Your task to perform on an android device: Go to Reddit.com Image 0: 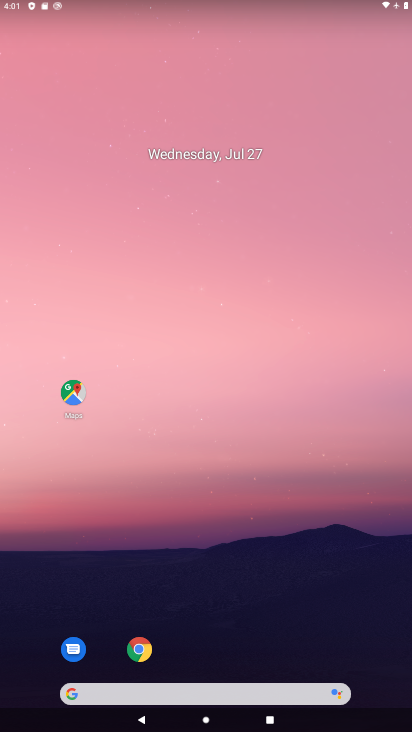
Step 0: click (145, 650)
Your task to perform on an android device: Go to Reddit.com Image 1: 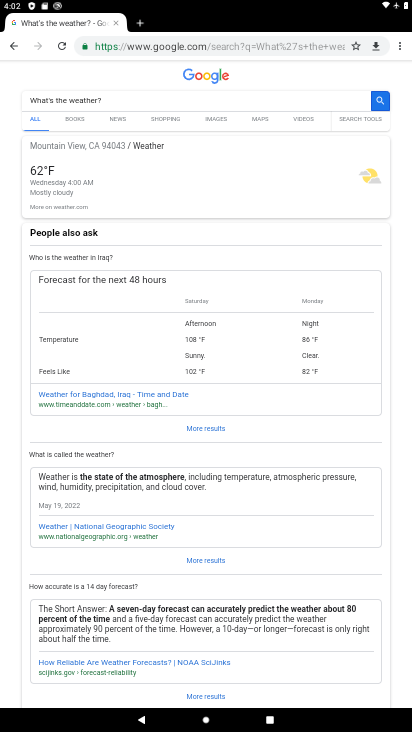
Step 1: click (261, 35)
Your task to perform on an android device: Go to Reddit.com Image 2: 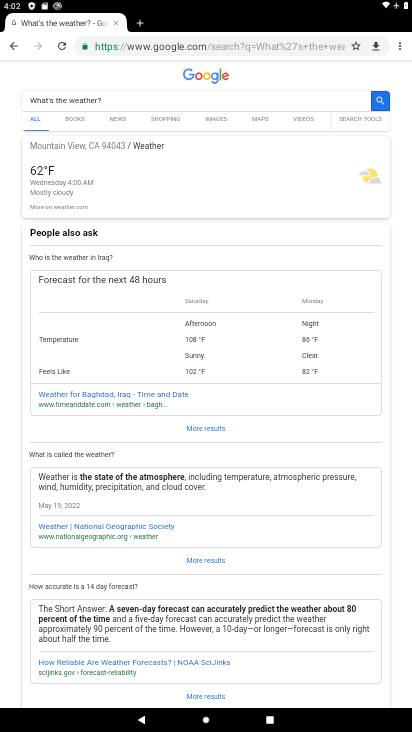
Step 2: click (264, 40)
Your task to perform on an android device: Go to Reddit.com Image 3: 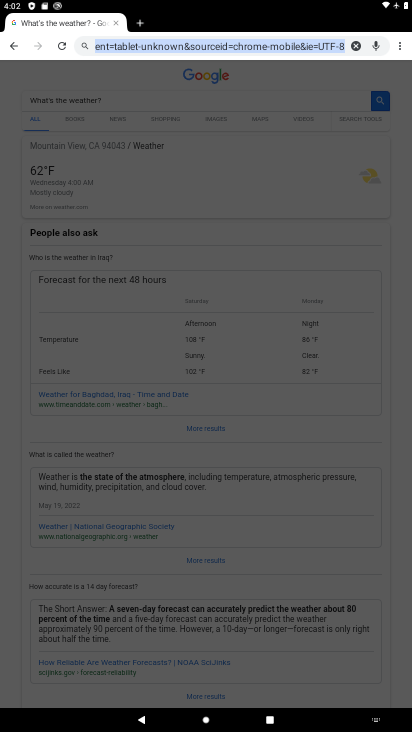
Step 3: type "reddit.com"
Your task to perform on an android device: Go to Reddit.com Image 4: 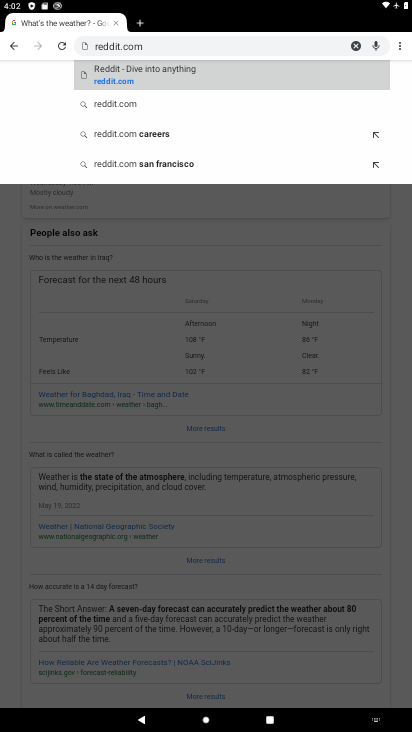
Step 4: click (343, 77)
Your task to perform on an android device: Go to Reddit.com Image 5: 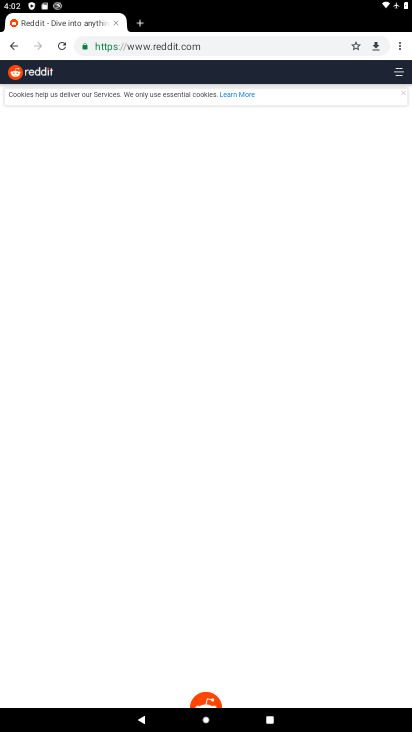
Step 5: task complete